Your task to perform on an android device: turn on javascript in the chrome app Image 0: 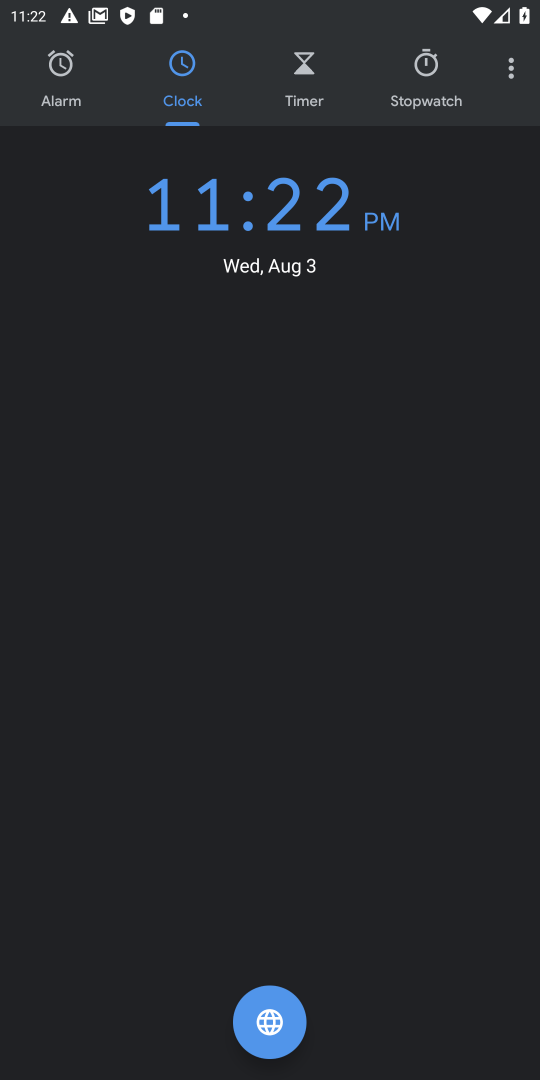
Step 0: drag from (245, 645) to (262, 375)
Your task to perform on an android device: turn on javascript in the chrome app Image 1: 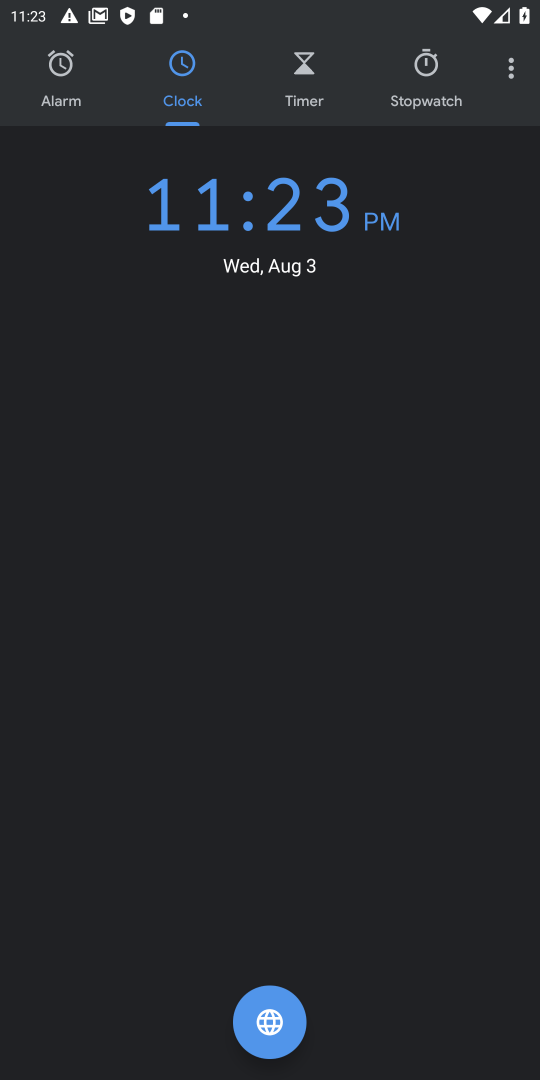
Step 1: press back button
Your task to perform on an android device: turn on javascript in the chrome app Image 2: 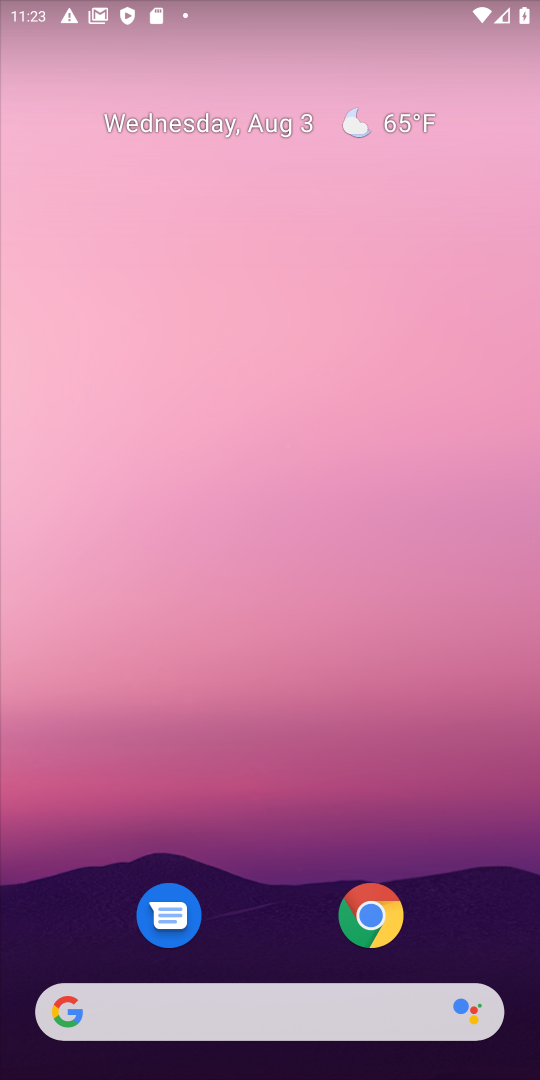
Step 2: click (356, 922)
Your task to perform on an android device: turn on javascript in the chrome app Image 3: 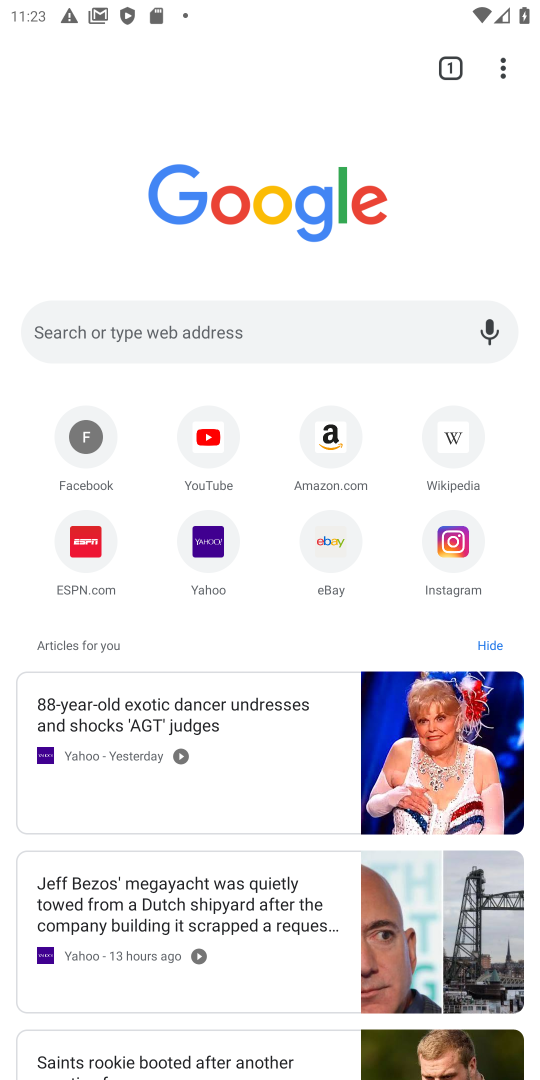
Step 3: click (503, 66)
Your task to perform on an android device: turn on javascript in the chrome app Image 4: 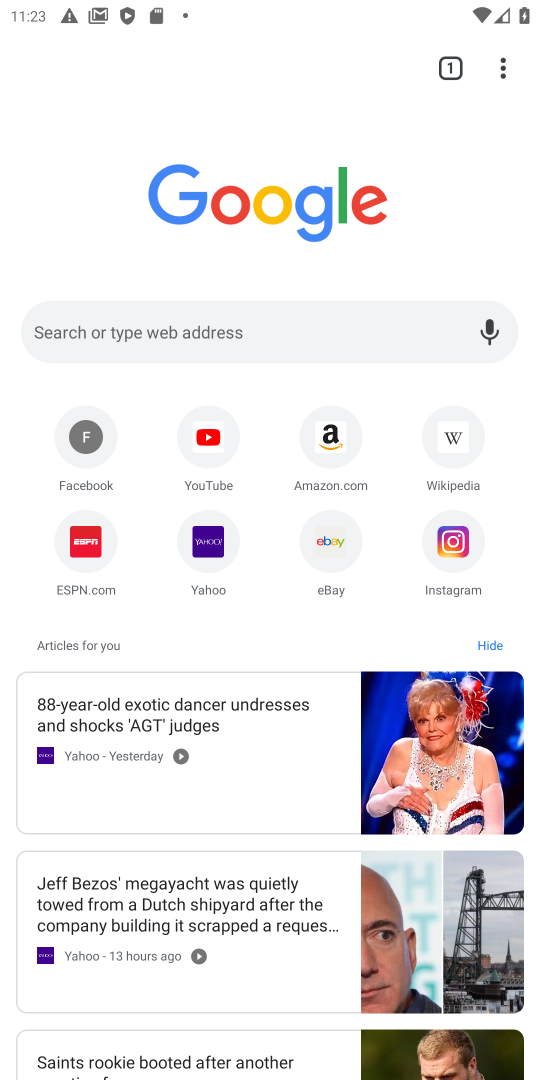
Step 4: click (503, 66)
Your task to perform on an android device: turn on javascript in the chrome app Image 5: 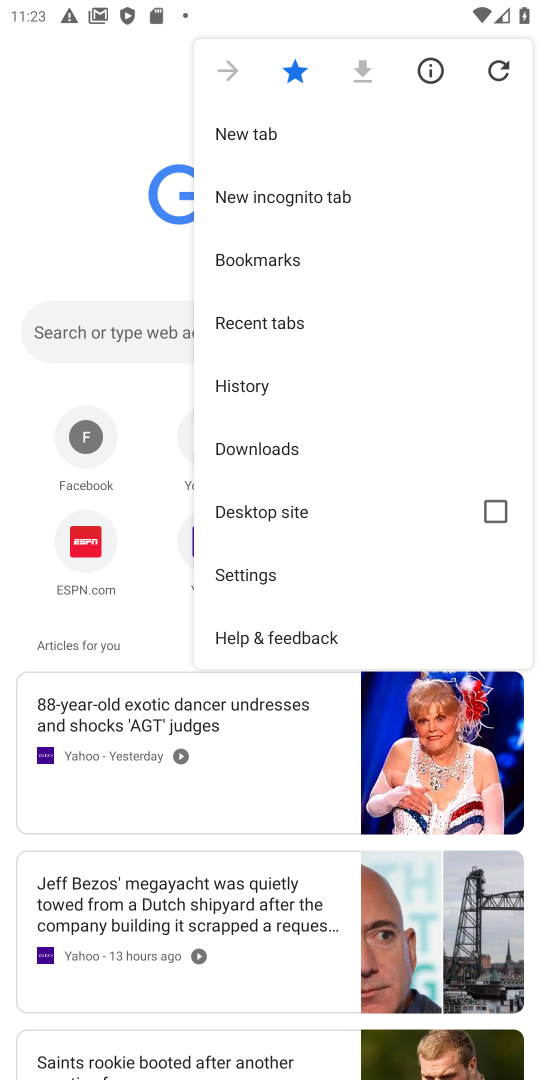
Step 5: click (250, 571)
Your task to perform on an android device: turn on javascript in the chrome app Image 6: 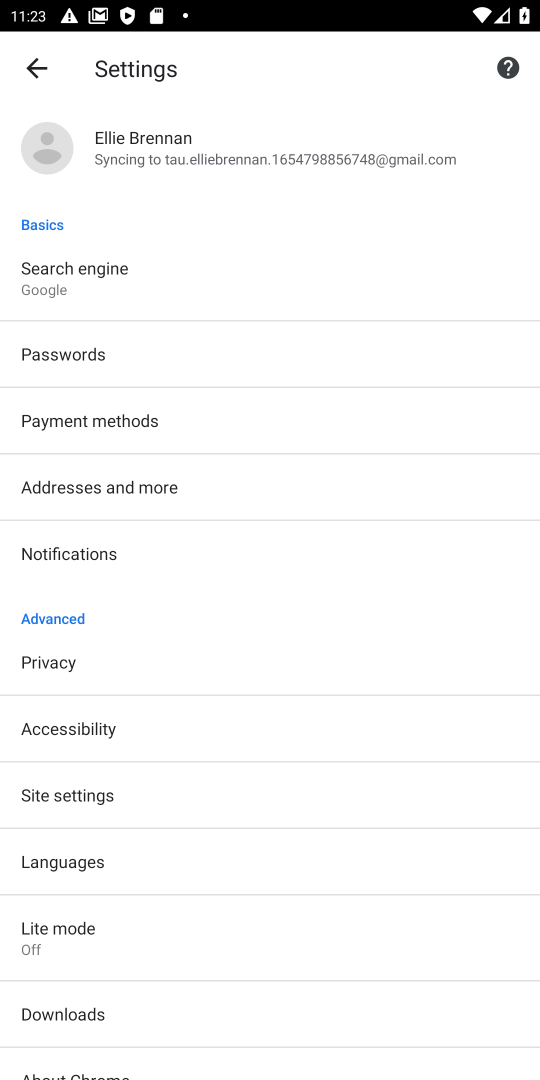
Step 6: click (51, 790)
Your task to perform on an android device: turn on javascript in the chrome app Image 7: 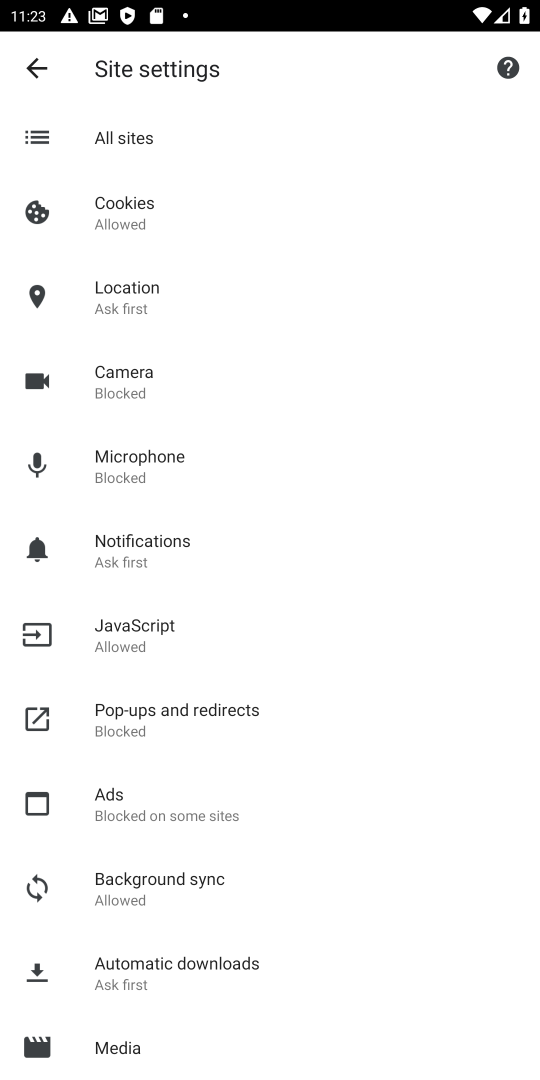
Step 7: click (151, 646)
Your task to perform on an android device: turn on javascript in the chrome app Image 8: 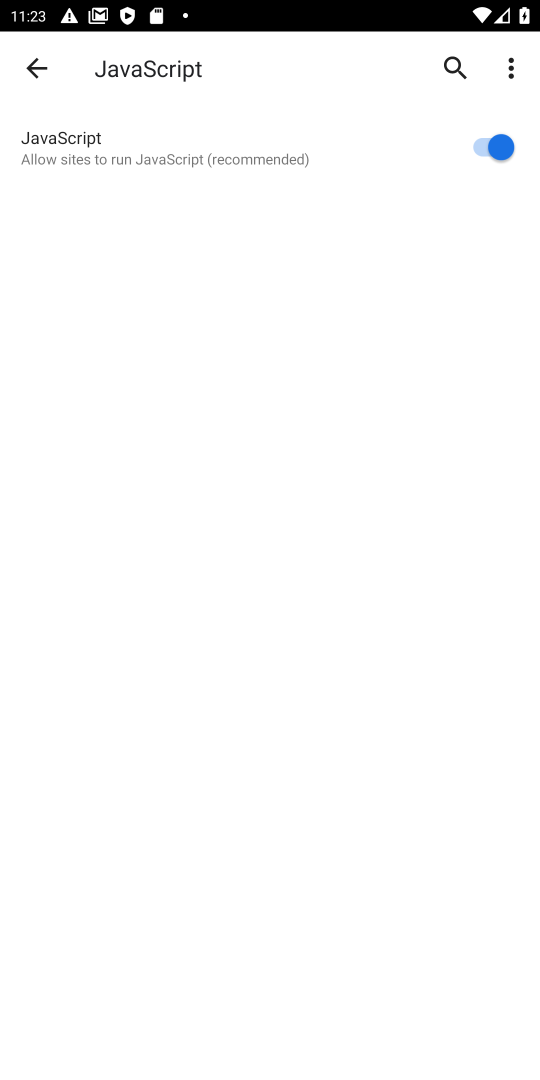
Step 8: task complete